Your task to perform on an android device: change your default location settings in chrome Image 0: 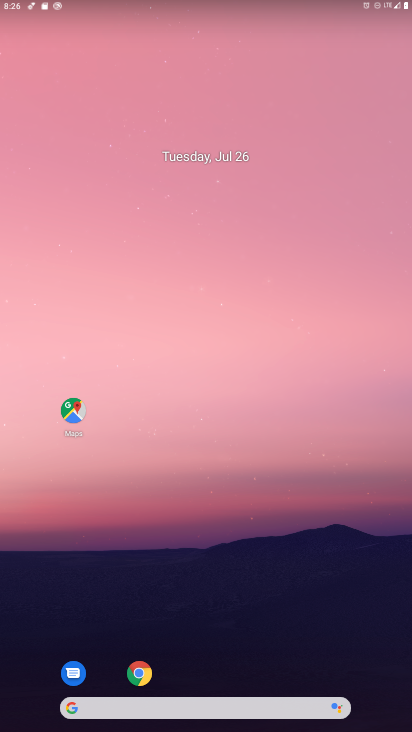
Step 0: drag from (397, 692) to (185, 19)
Your task to perform on an android device: change your default location settings in chrome Image 1: 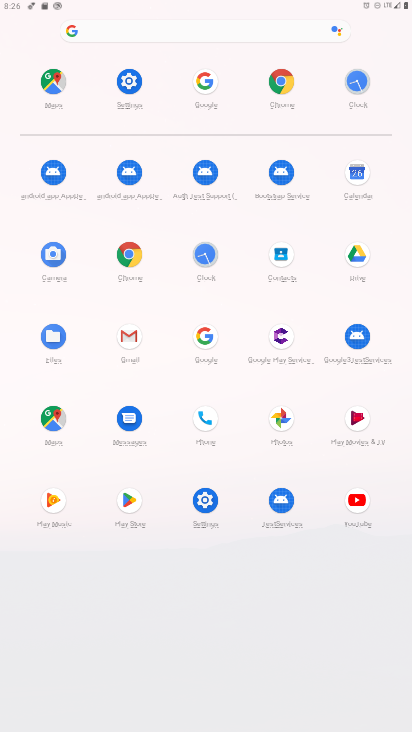
Step 1: click (290, 68)
Your task to perform on an android device: change your default location settings in chrome Image 2: 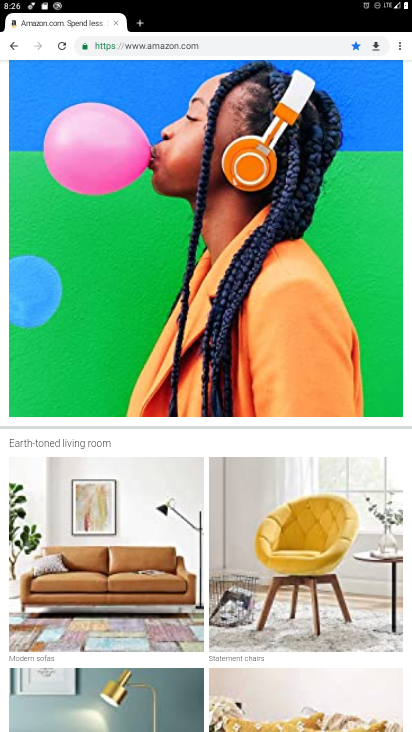
Step 2: click (405, 41)
Your task to perform on an android device: change your default location settings in chrome Image 3: 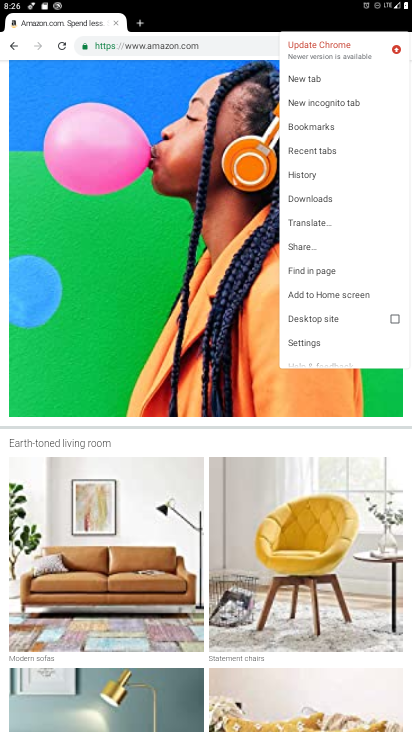
Step 3: click (312, 346)
Your task to perform on an android device: change your default location settings in chrome Image 4: 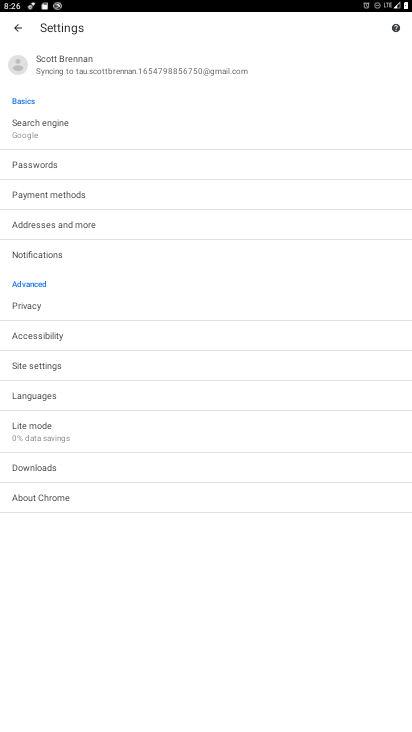
Step 4: click (68, 139)
Your task to perform on an android device: change your default location settings in chrome Image 5: 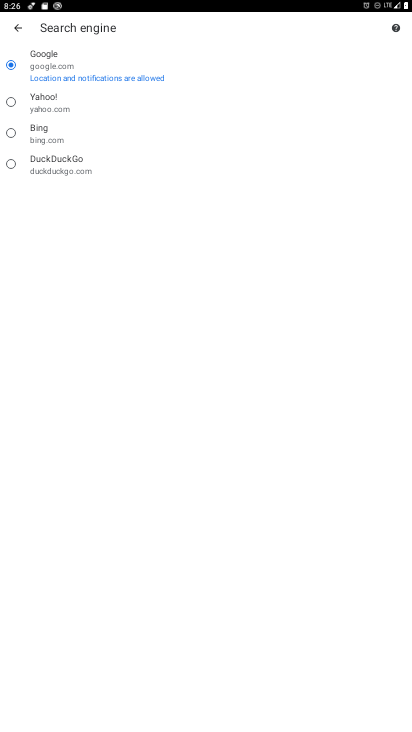
Step 5: click (30, 139)
Your task to perform on an android device: change your default location settings in chrome Image 6: 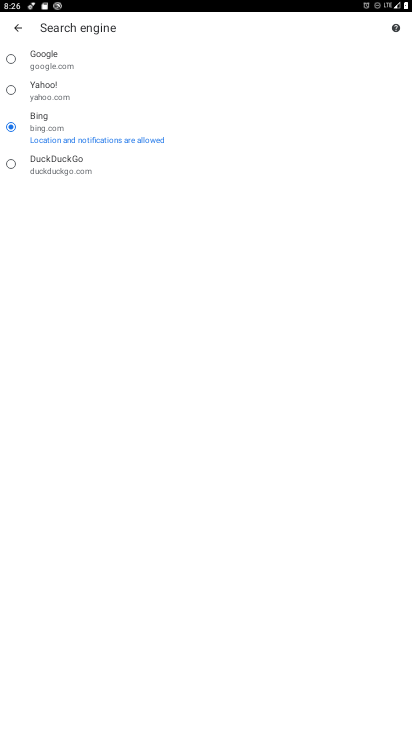
Step 6: task complete